Your task to perform on an android device: Open Maps and search for coffee Image 0: 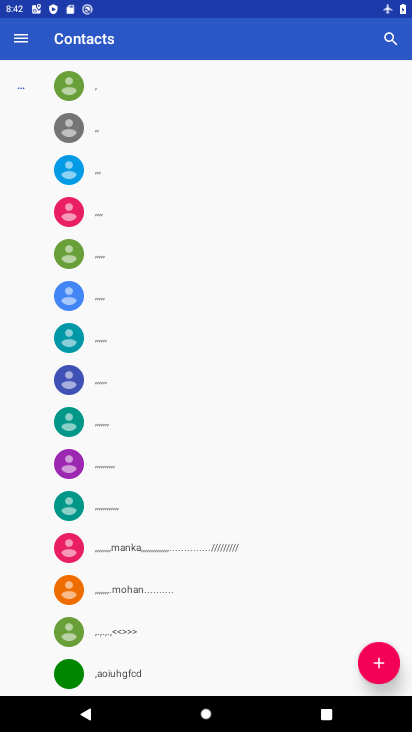
Step 0: press home button
Your task to perform on an android device: Open Maps and search for coffee Image 1: 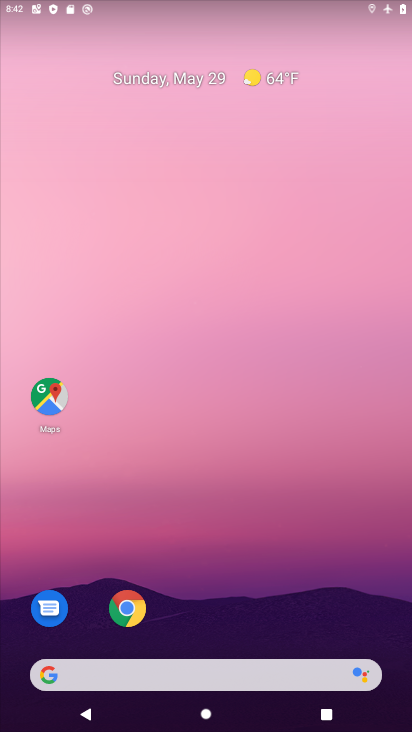
Step 1: click (60, 397)
Your task to perform on an android device: Open Maps and search for coffee Image 2: 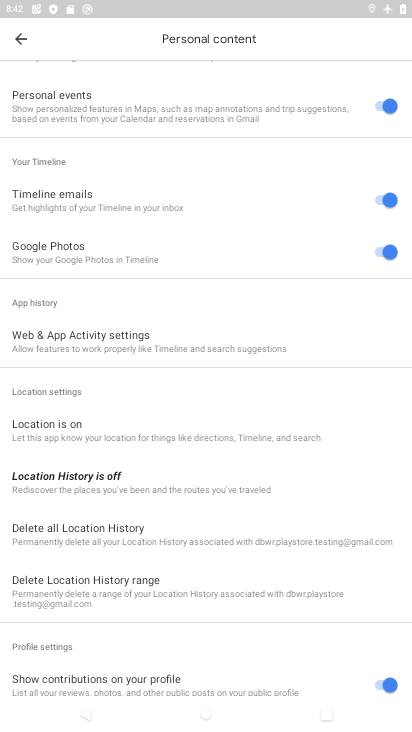
Step 2: click (20, 41)
Your task to perform on an android device: Open Maps and search for coffee Image 3: 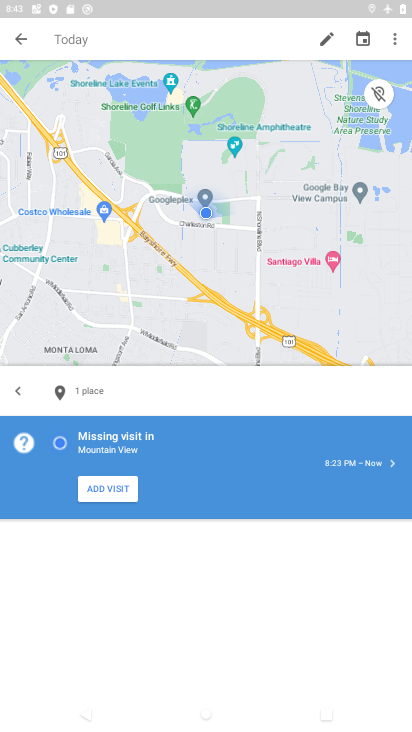
Step 3: click (20, 37)
Your task to perform on an android device: Open Maps and search for coffee Image 4: 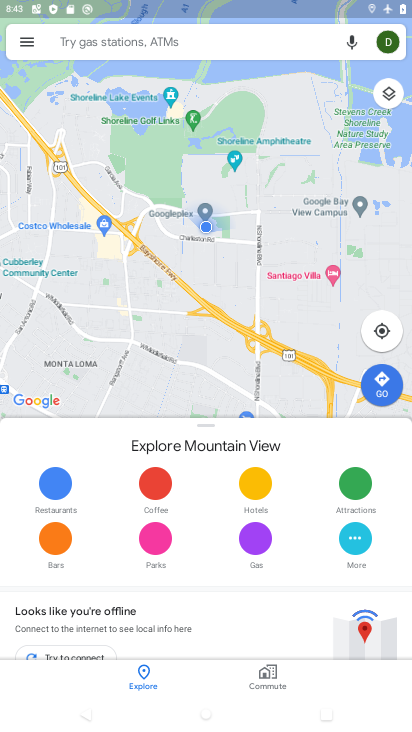
Step 4: click (134, 46)
Your task to perform on an android device: Open Maps and search for coffee Image 5: 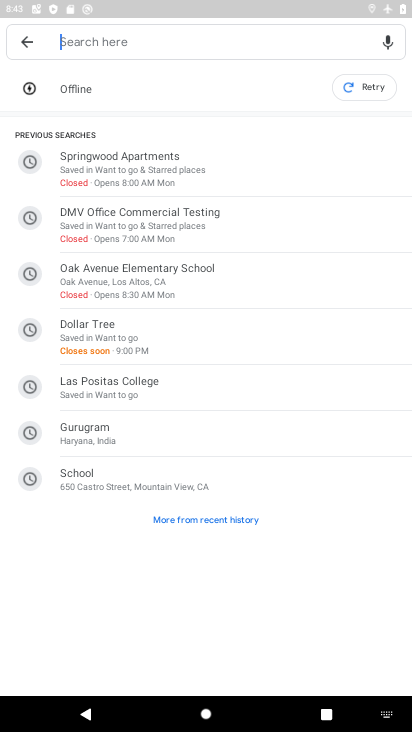
Step 5: type "coffee"
Your task to perform on an android device: Open Maps and search for coffee Image 6: 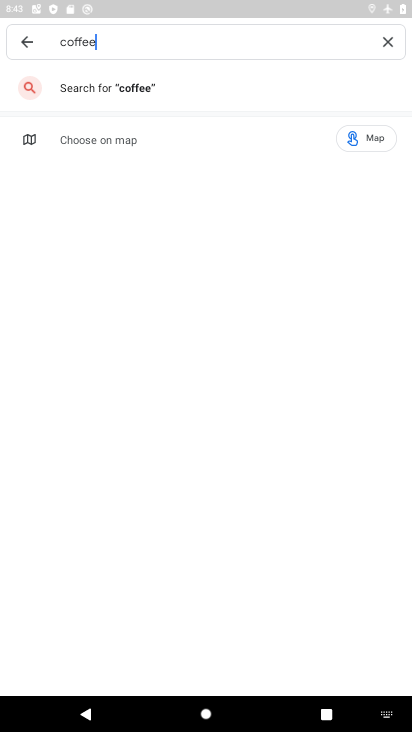
Step 6: task complete